Your task to perform on an android device: move a message to another label in the gmail app Image 0: 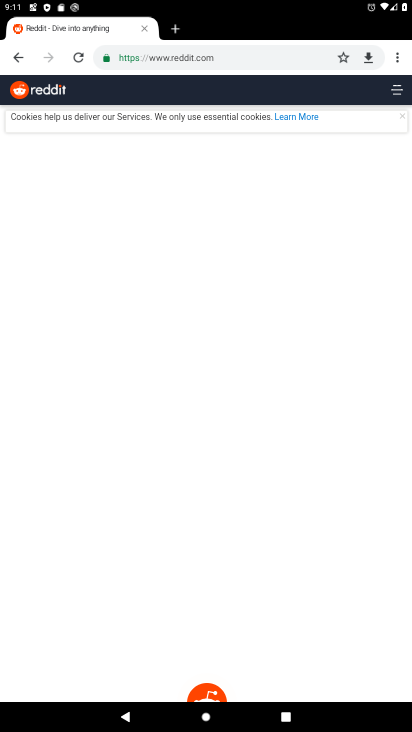
Step 0: press home button
Your task to perform on an android device: move a message to another label in the gmail app Image 1: 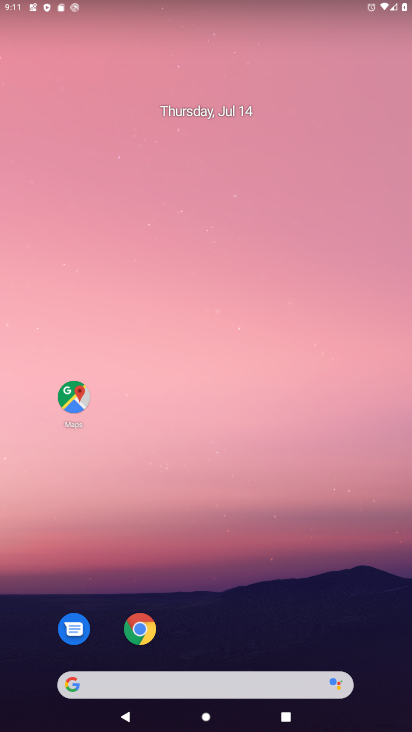
Step 1: drag from (211, 600) to (304, 1)
Your task to perform on an android device: move a message to another label in the gmail app Image 2: 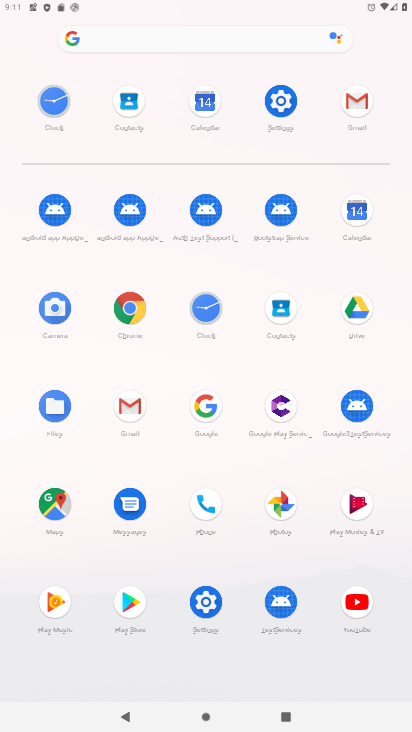
Step 2: click (362, 106)
Your task to perform on an android device: move a message to another label in the gmail app Image 3: 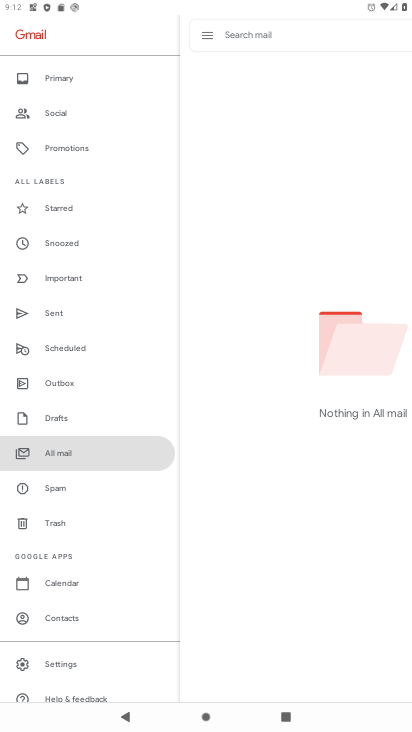
Step 3: click (93, 449)
Your task to perform on an android device: move a message to another label in the gmail app Image 4: 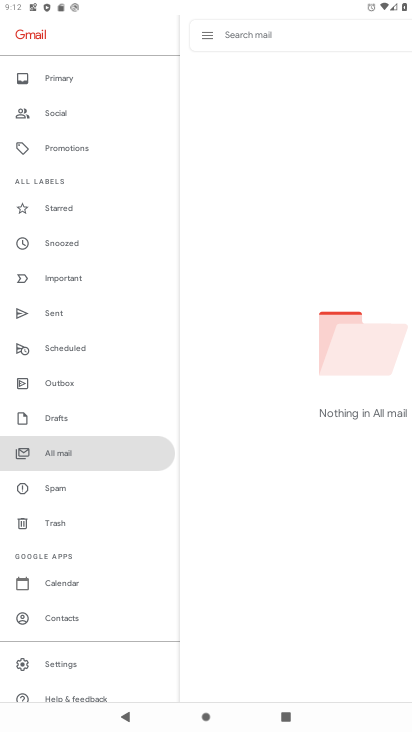
Step 4: task complete